Your task to perform on an android device: turn on sleep mode Image 0: 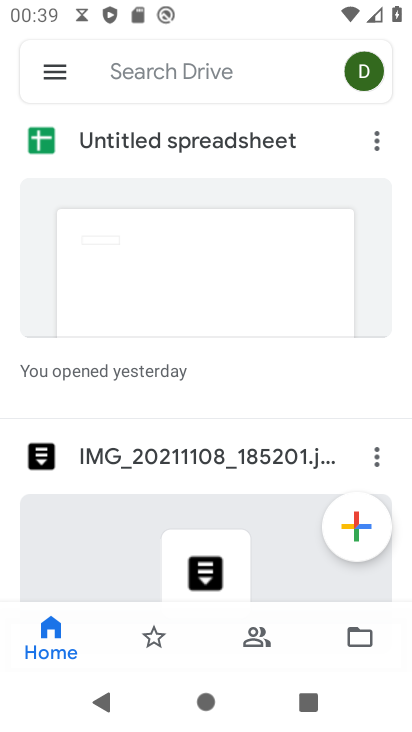
Step 0: press home button
Your task to perform on an android device: turn on sleep mode Image 1: 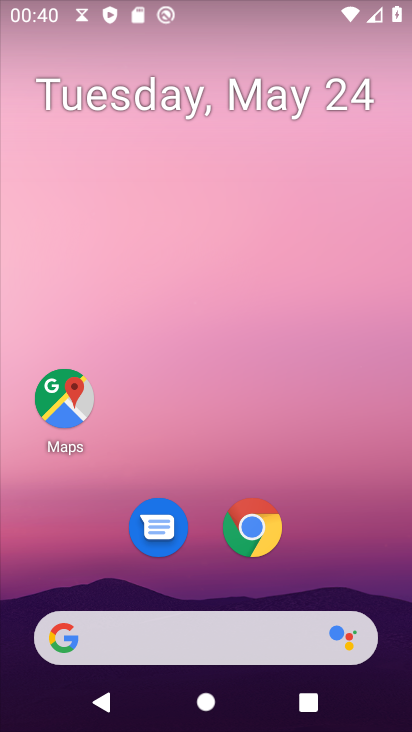
Step 1: drag from (118, 650) to (306, 93)
Your task to perform on an android device: turn on sleep mode Image 2: 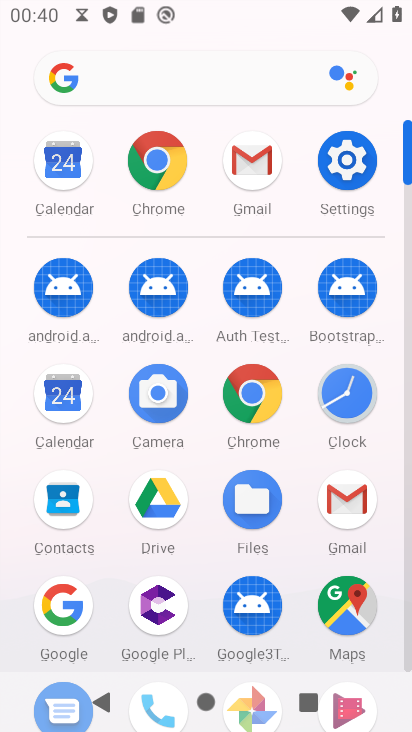
Step 2: click (332, 169)
Your task to perform on an android device: turn on sleep mode Image 3: 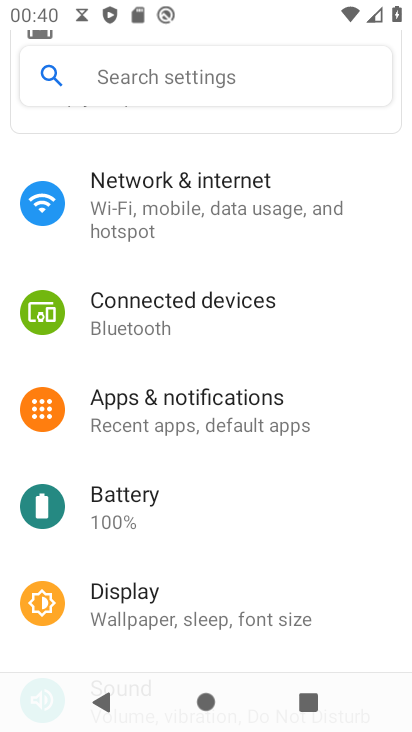
Step 3: drag from (212, 517) to (284, 197)
Your task to perform on an android device: turn on sleep mode Image 4: 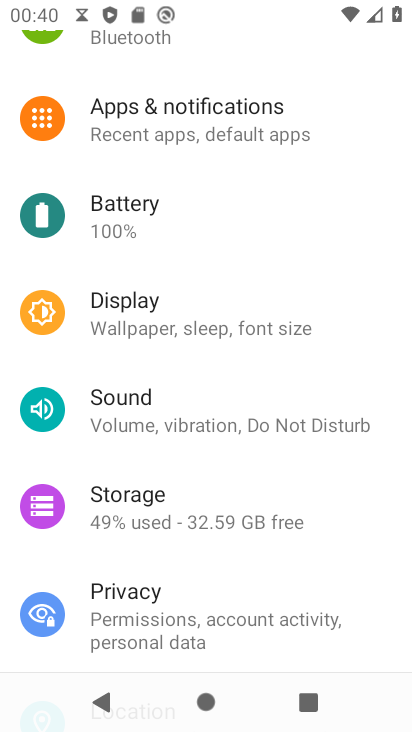
Step 4: click (209, 320)
Your task to perform on an android device: turn on sleep mode Image 5: 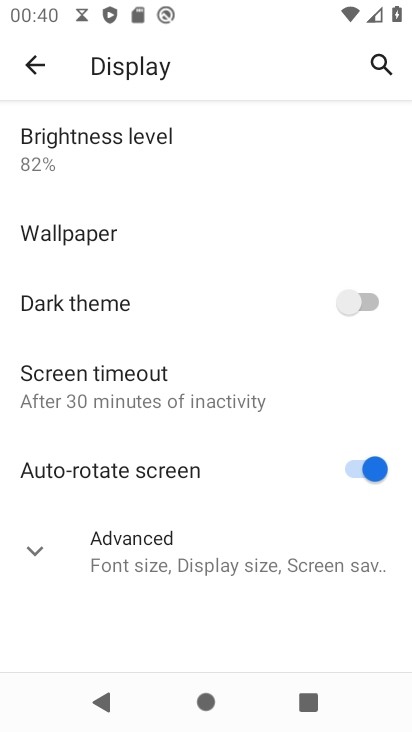
Step 5: task complete